Your task to perform on an android device: Go to Google Image 0: 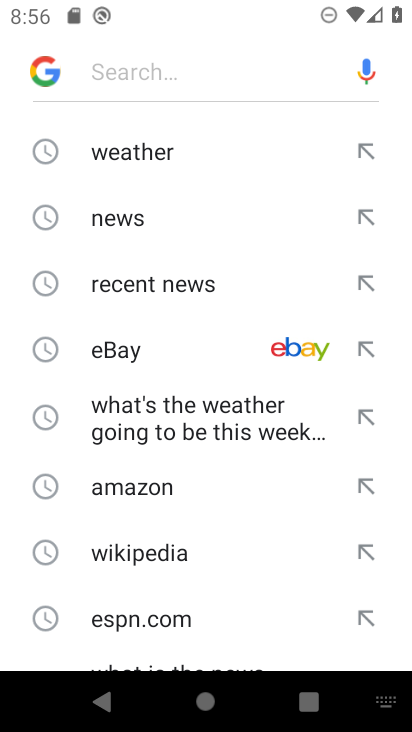
Step 0: press home button
Your task to perform on an android device: Go to Google Image 1: 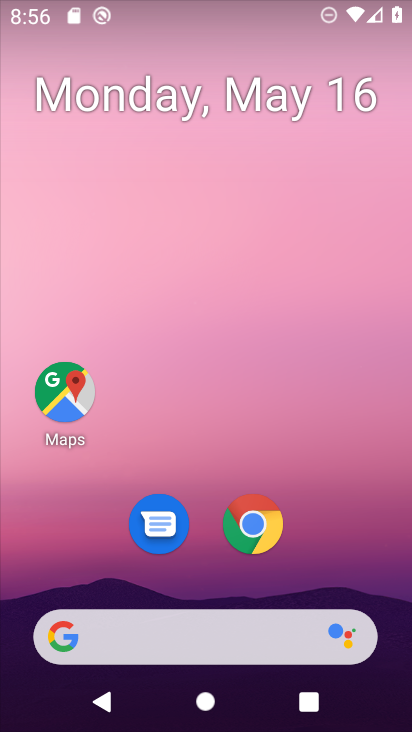
Step 1: click (105, 633)
Your task to perform on an android device: Go to Google Image 2: 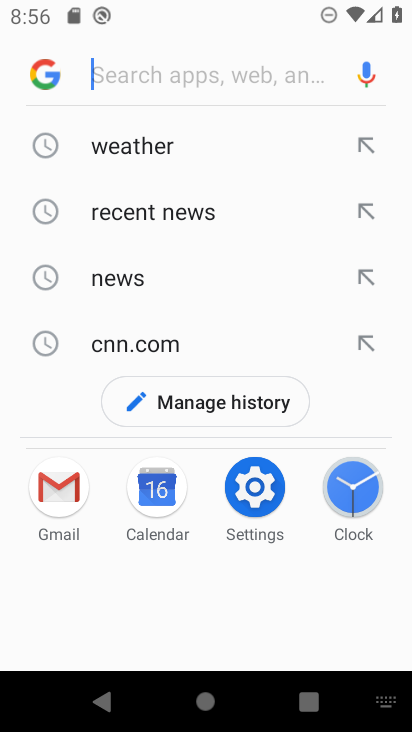
Step 2: click (46, 76)
Your task to perform on an android device: Go to Google Image 3: 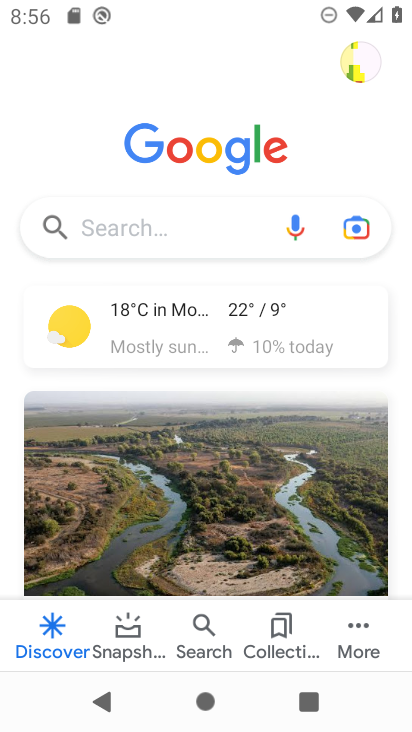
Step 3: task complete